Your task to perform on an android device: See recent photos Image 0: 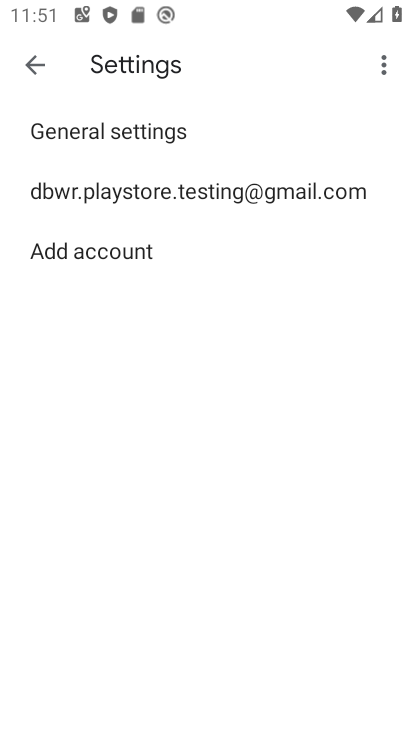
Step 0: press home button
Your task to perform on an android device: See recent photos Image 1: 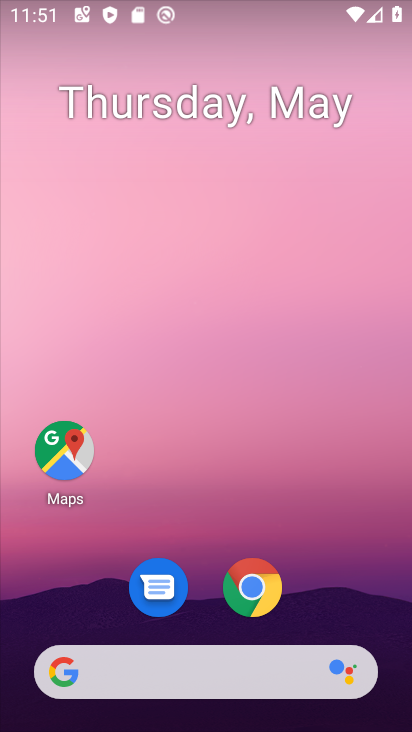
Step 1: drag from (135, 710) to (146, 104)
Your task to perform on an android device: See recent photos Image 2: 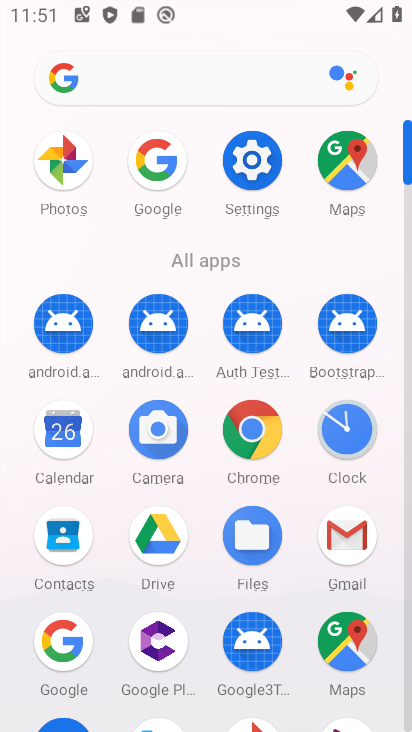
Step 2: click (55, 157)
Your task to perform on an android device: See recent photos Image 3: 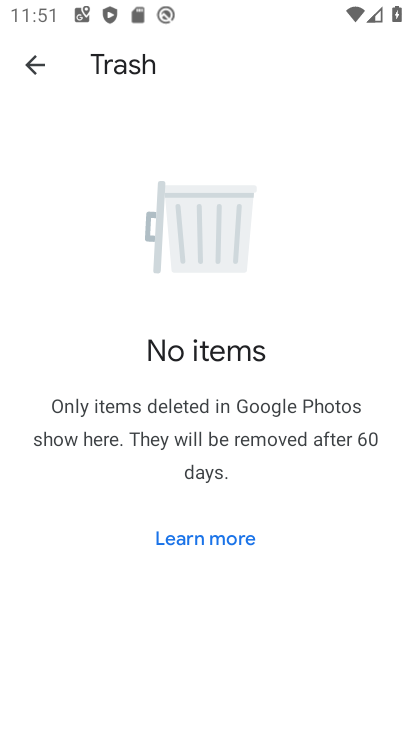
Step 3: click (38, 73)
Your task to perform on an android device: See recent photos Image 4: 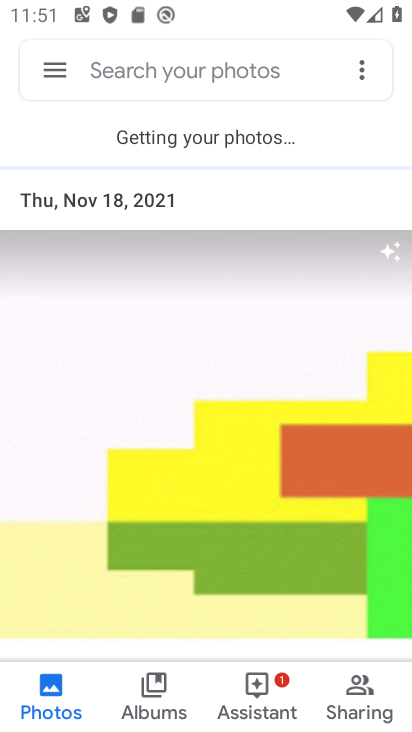
Step 4: click (196, 465)
Your task to perform on an android device: See recent photos Image 5: 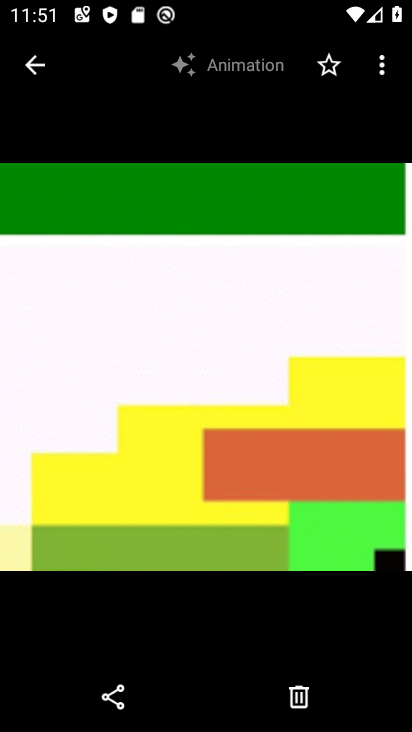
Step 5: click (32, 58)
Your task to perform on an android device: See recent photos Image 6: 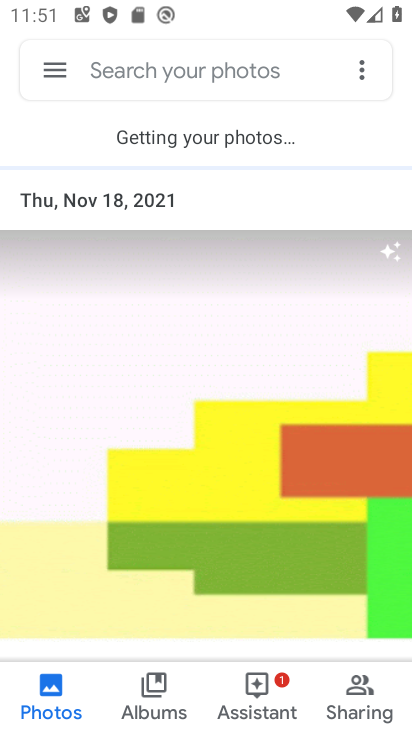
Step 6: click (50, 71)
Your task to perform on an android device: See recent photos Image 7: 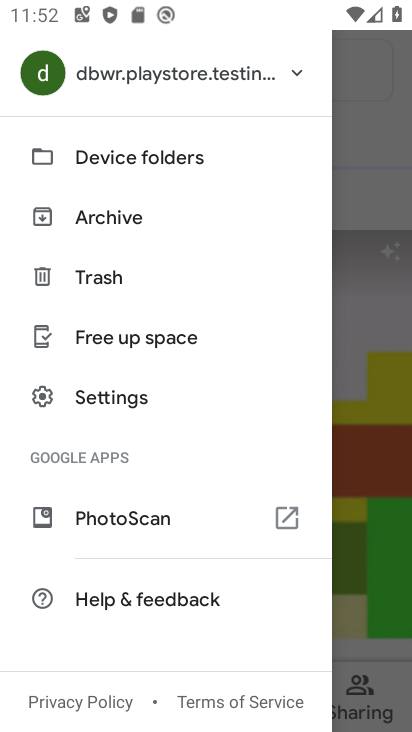
Step 7: click (376, 166)
Your task to perform on an android device: See recent photos Image 8: 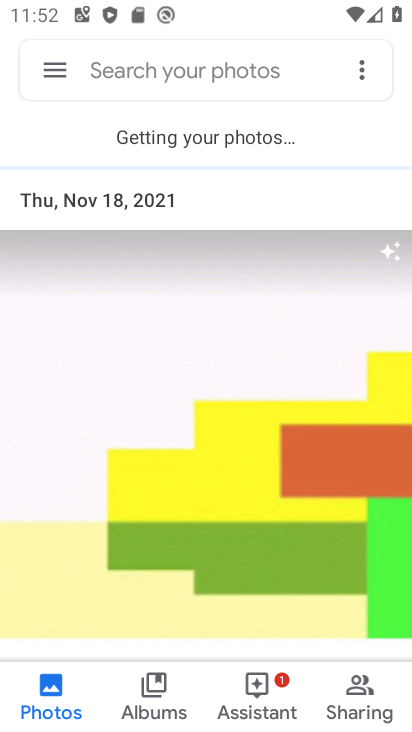
Step 8: task complete